Your task to perform on an android device: delete a single message in the gmail app Image 0: 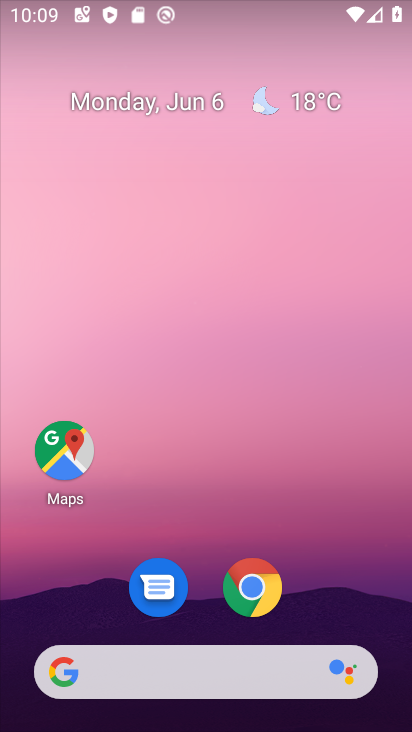
Step 0: drag from (351, 505) to (344, 0)
Your task to perform on an android device: delete a single message in the gmail app Image 1: 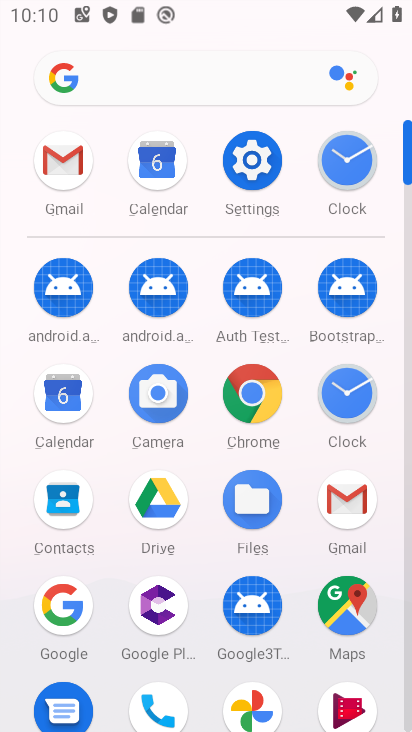
Step 1: click (339, 494)
Your task to perform on an android device: delete a single message in the gmail app Image 2: 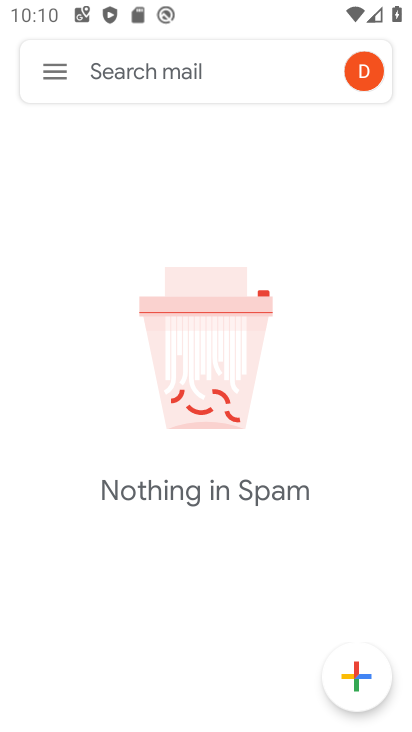
Step 2: click (62, 72)
Your task to perform on an android device: delete a single message in the gmail app Image 3: 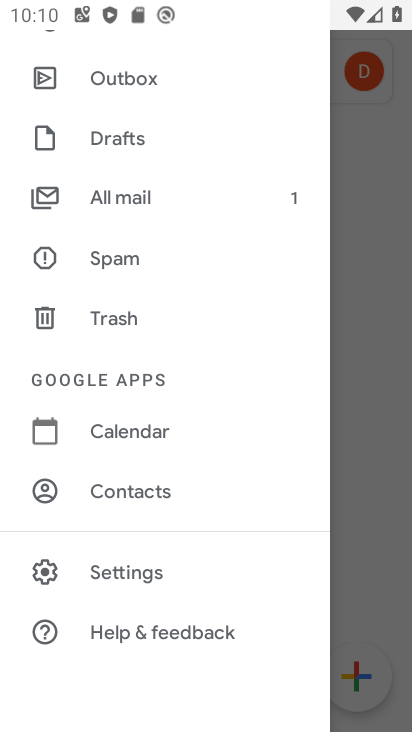
Step 3: click (146, 200)
Your task to perform on an android device: delete a single message in the gmail app Image 4: 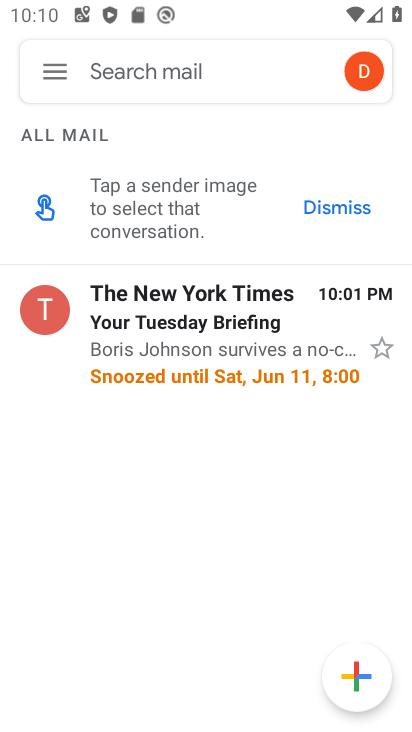
Step 4: click (307, 296)
Your task to perform on an android device: delete a single message in the gmail app Image 5: 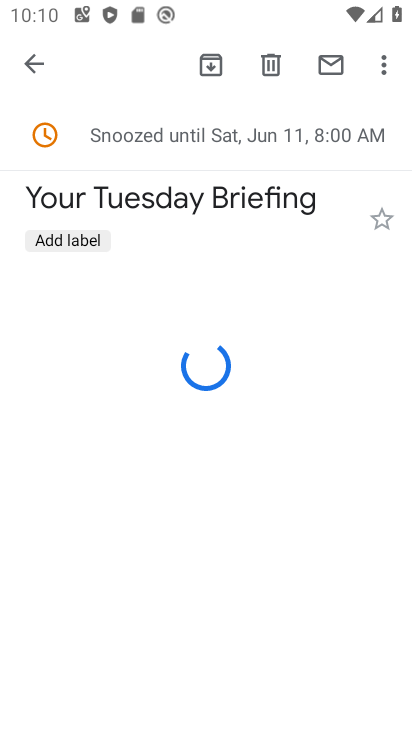
Step 5: click (272, 60)
Your task to perform on an android device: delete a single message in the gmail app Image 6: 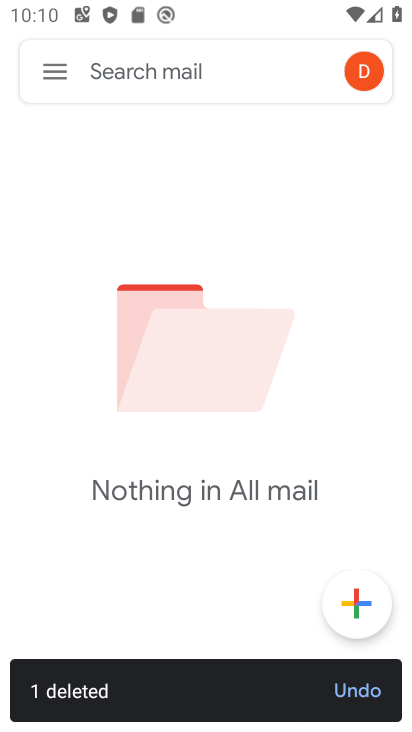
Step 6: task complete